Your task to perform on an android device: check data usage Image 0: 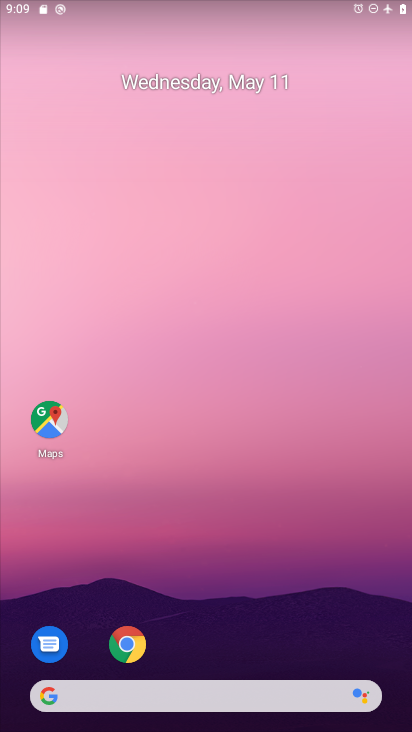
Step 0: drag from (261, 587) to (169, 69)
Your task to perform on an android device: check data usage Image 1: 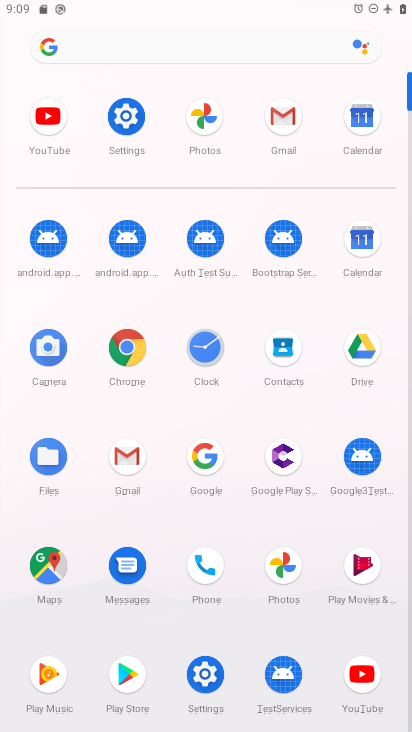
Step 1: click (129, 116)
Your task to perform on an android device: check data usage Image 2: 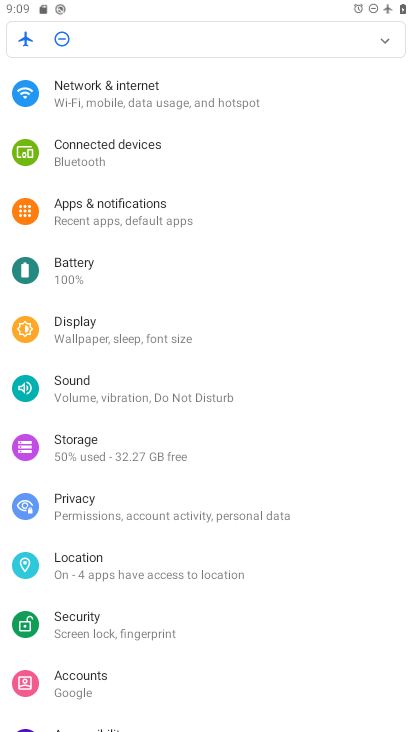
Step 2: click (90, 92)
Your task to perform on an android device: check data usage Image 3: 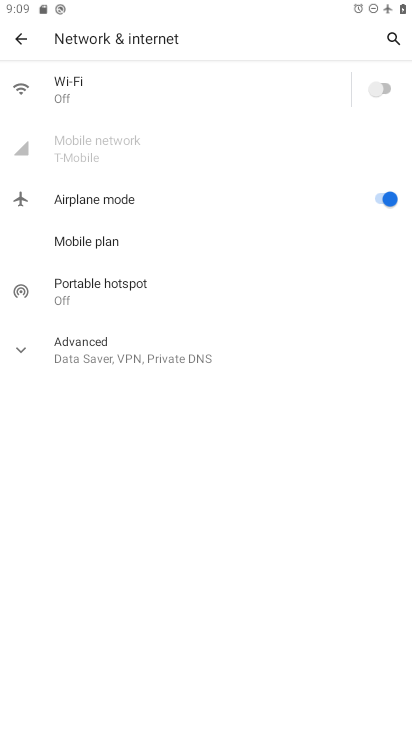
Step 3: click (77, 134)
Your task to perform on an android device: check data usage Image 4: 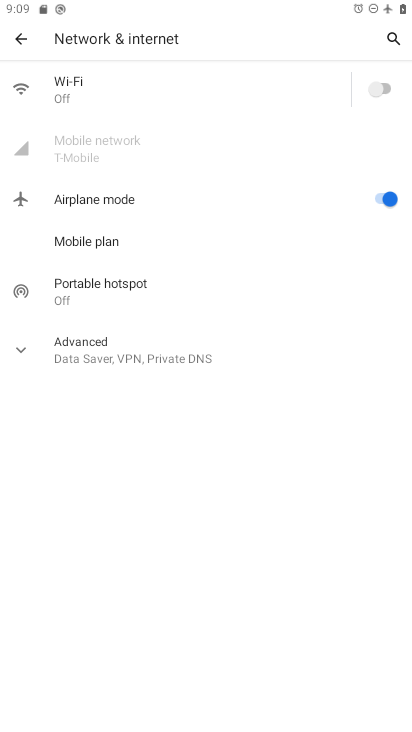
Step 4: task complete